Your task to perform on an android device: open a new tab in the chrome app Image 0: 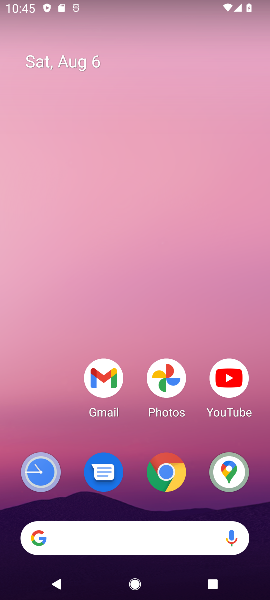
Step 0: drag from (111, 464) to (73, 159)
Your task to perform on an android device: open a new tab in the chrome app Image 1: 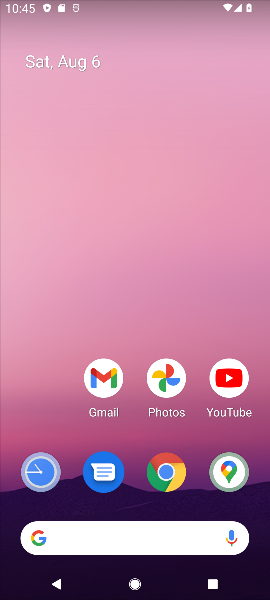
Step 1: drag from (171, 505) to (111, 158)
Your task to perform on an android device: open a new tab in the chrome app Image 2: 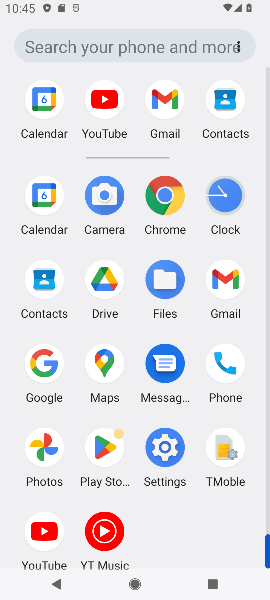
Step 2: drag from (186, 546) to (113, 113)
Your task to perform on an android device: open a new tab in the chrome app Image 3: 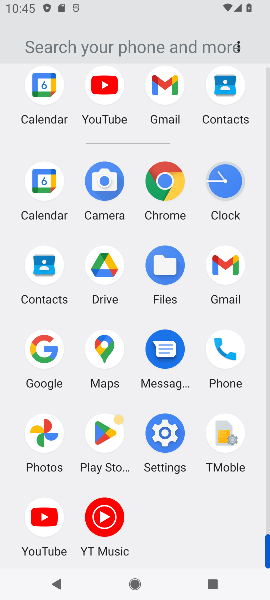
Step 3: click (168, 179)
Your task to perform on an android device: open a new tab in the chrome app Image 4: 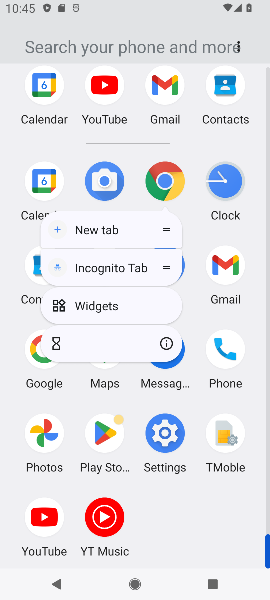
Step 4: click (168, 179)
Your task to perform on an android device: open a new tab in the chrome app Image 5: 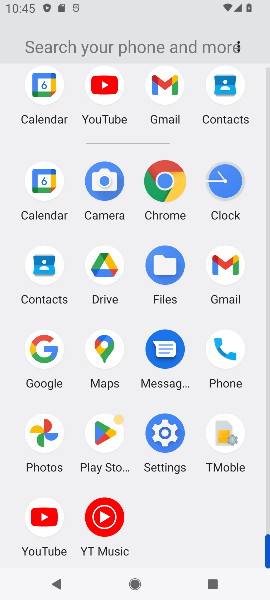
Step 5: click (167, 179)
Your task to perform on an android device: open a new tab in the chrome app Image 6: 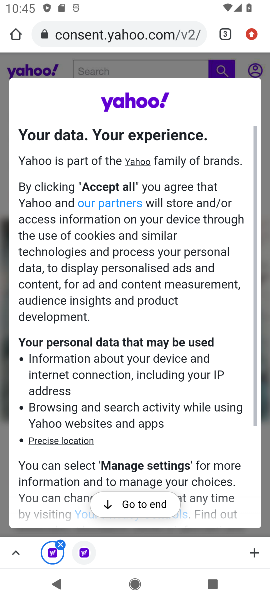
Step 6: click (247, 38)
Your task to perform on an android device: open a new tab in the chrome app Image 7: 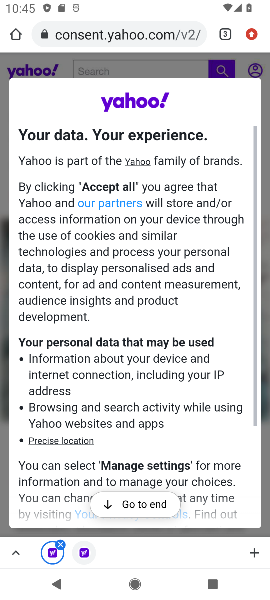
Step 7: click (247, 38)
Your task to perform on an android device: open a new tab in the chrome app Image 8: 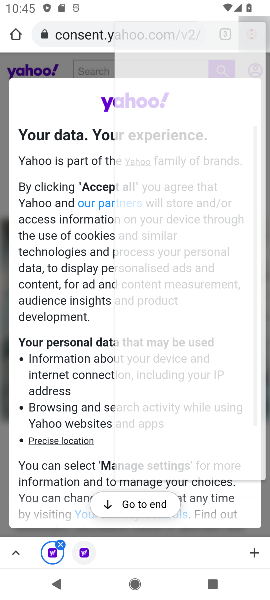
Step 8: click (249, 38)
Your task to perform on an android device: open a new tab in the chrome app Image 9: 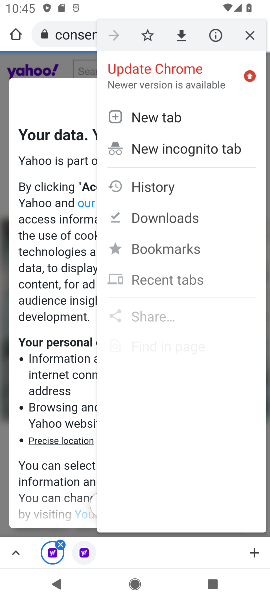
Step 9: drag from (249, 38) to (157, 121)
Your task to perform on an android device: open a new tab in the chrome app Image 10: 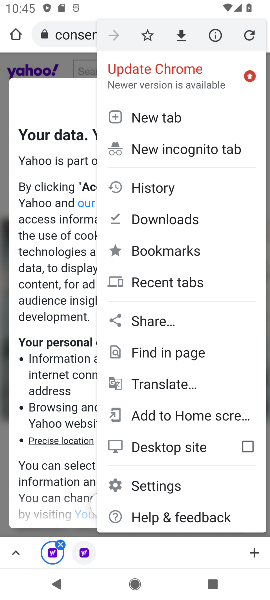
Step 10: click (157, 121)
Your task to perform on an android device: open a new tab in the chrome app Image 11: 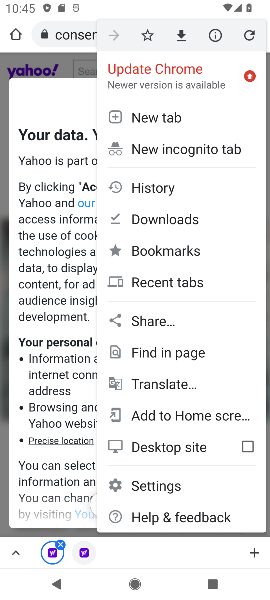
Step 11: click (155, 123)
Your task to perform on an android device: open a new tab in the chrome app Image 12: 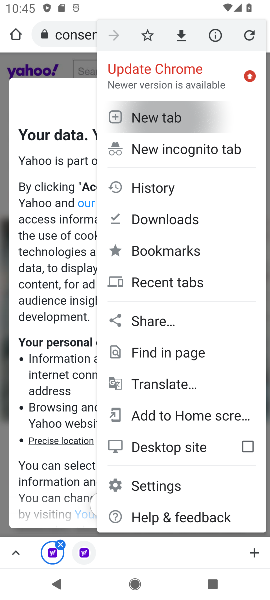
Step 12: click (155, 123)
Your task to perform on an android device: open a new tab in the chrome app Image 13: 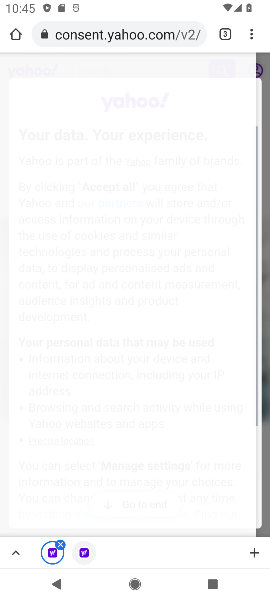
Step 13: click (154, 123)
Your task to perform on an android device: open a new tab in the chrome app Image 14: 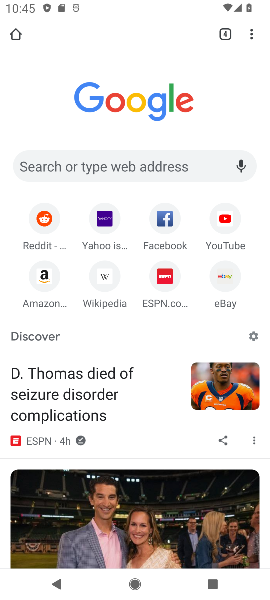
Step 14: task complete